Your task to perform on an android device: turn on location history Image 0: 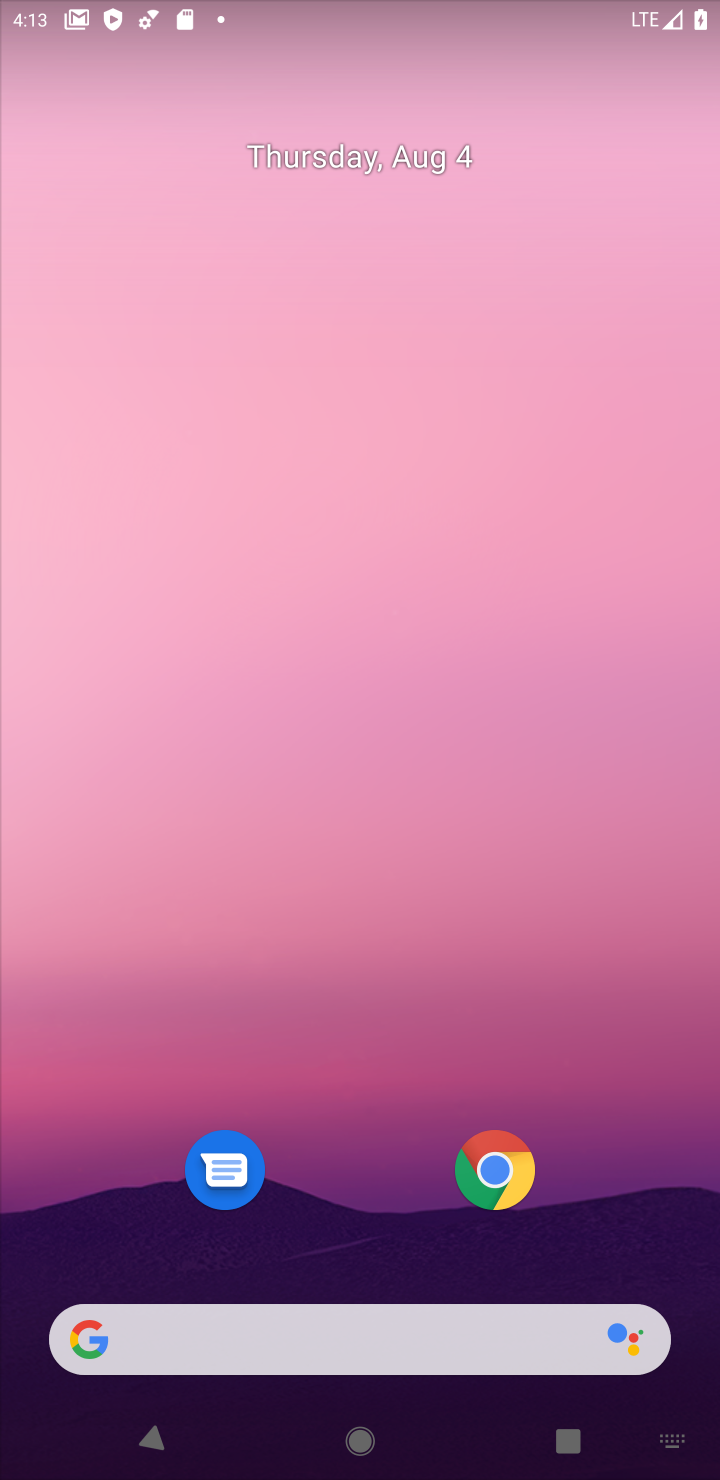
Step 0: drag from (643, 1218) to (547, 179)
Your task to perform on an android device: turn on location history Image 1: 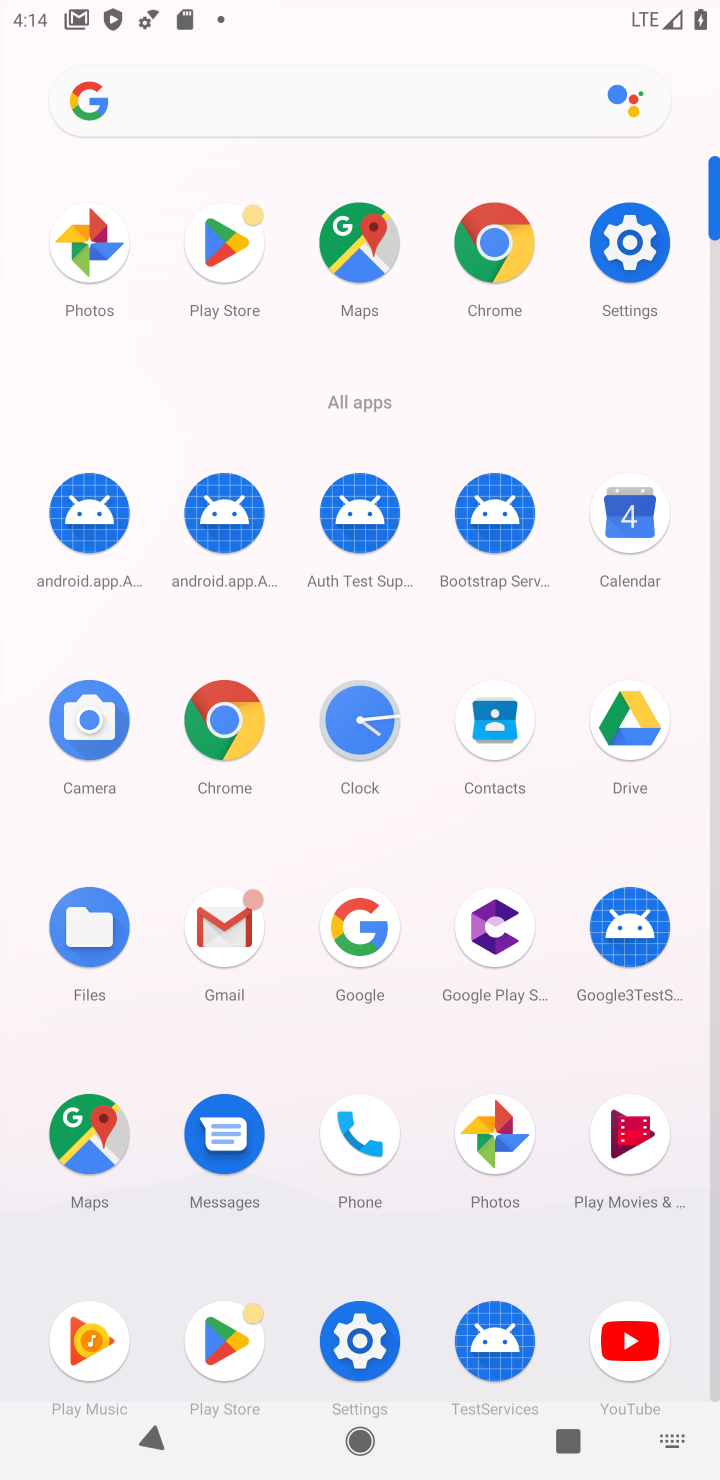
Step 1: click (340, 238)
Your task to perform on an android device: turn on location history Image 2: 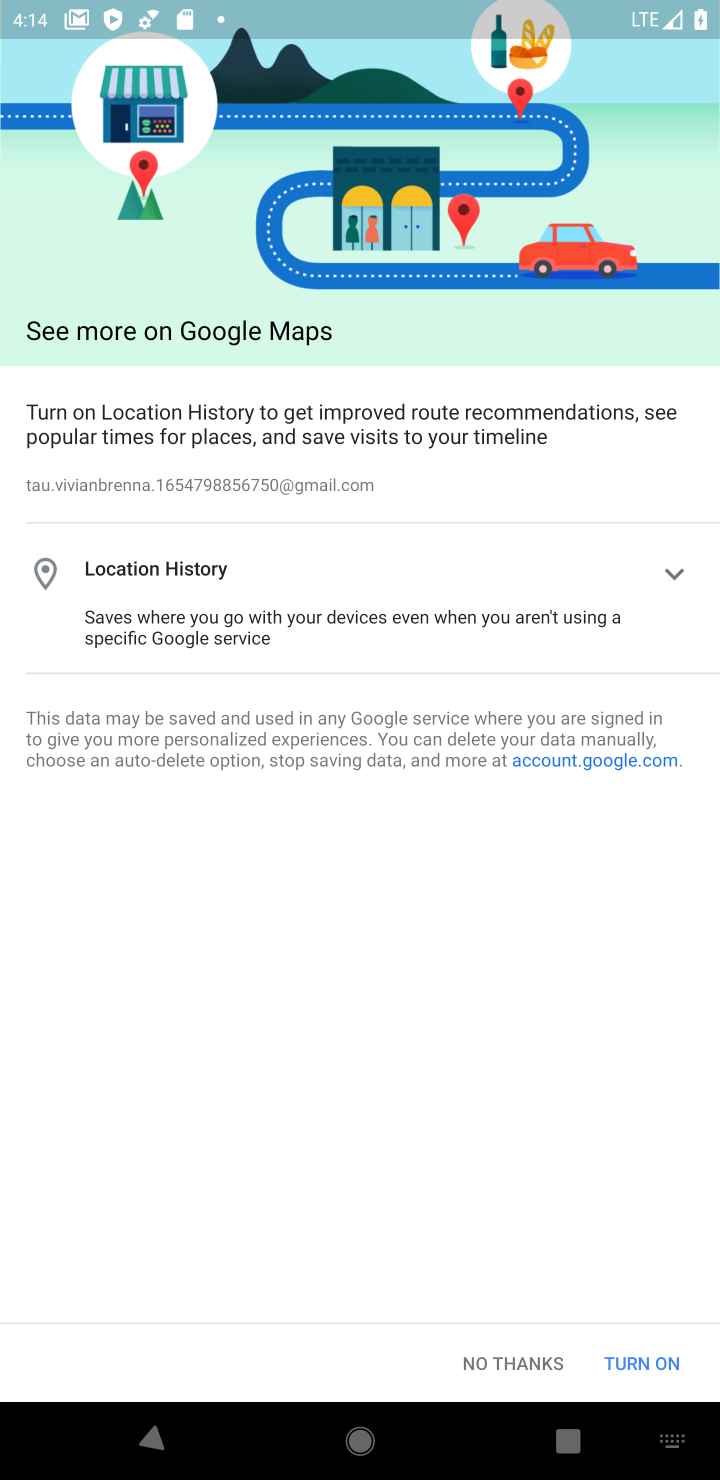
Step 2: click (634, 1357)
Your task to perform on an android device: turn on location history Image 3: 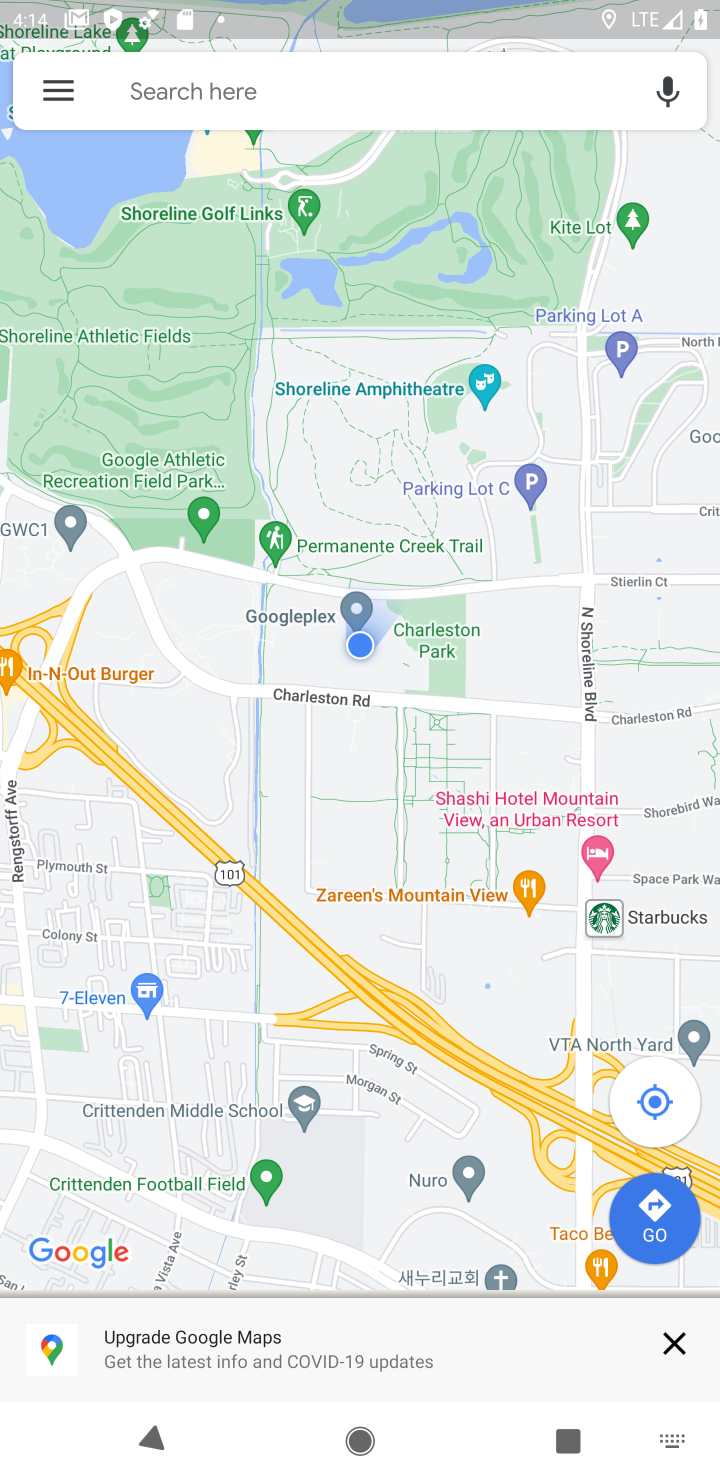
Step 3: task complete